Your task to perform on an android device: Add "energizer triple a" to the cart on amazon, then select checkout. Image 0: 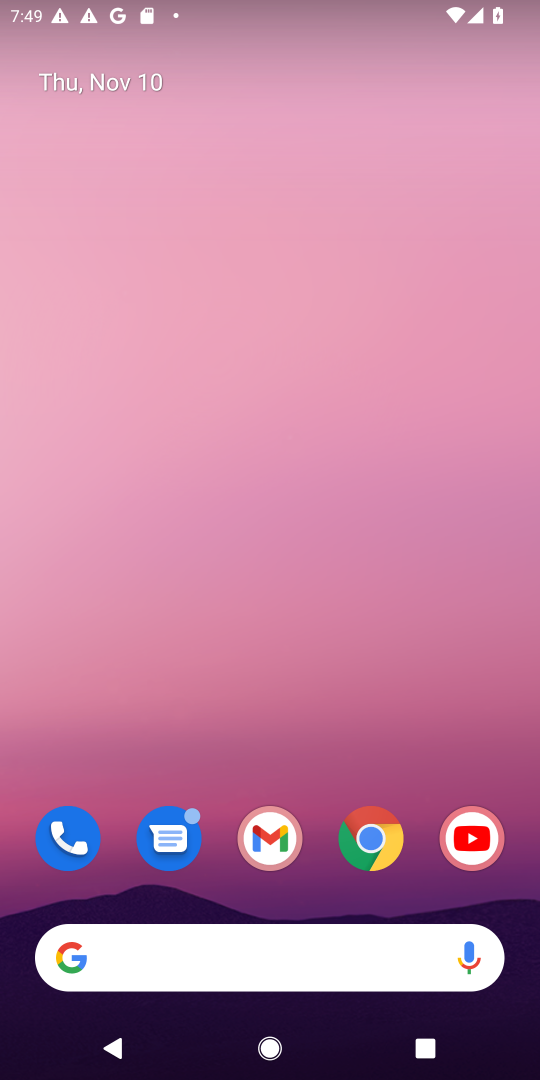
Step 0: drag from (297, 908) to (378, 57)
Your task to perform on an android device: Add "energizer triple a" to the cart on amazon, then select checkout. Image 1: 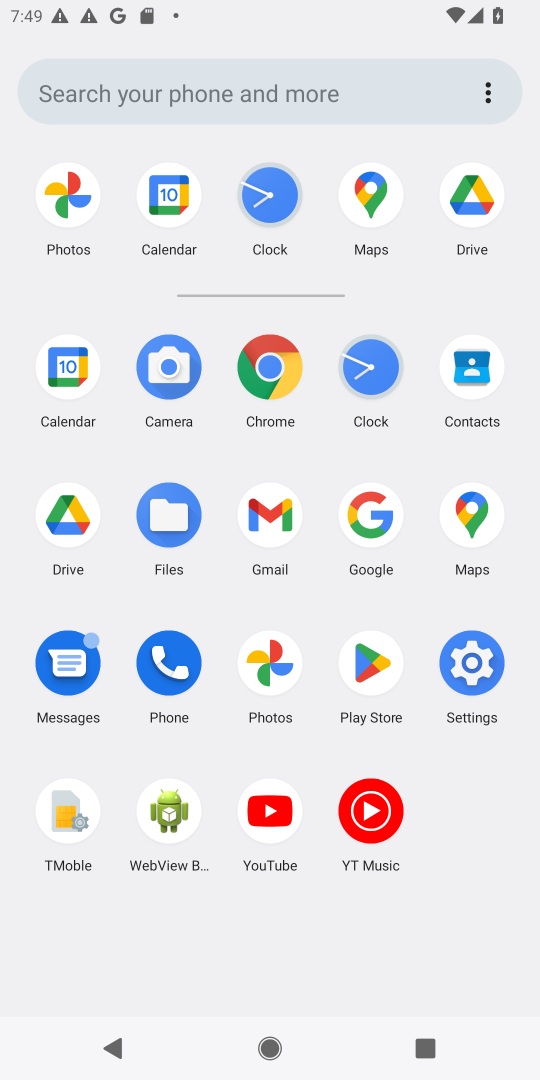
Step 1: click (271, 356)
Your task to perform on an android device: Add "energizer triple a" to the cart on amazon, then select checkout. Image 2: 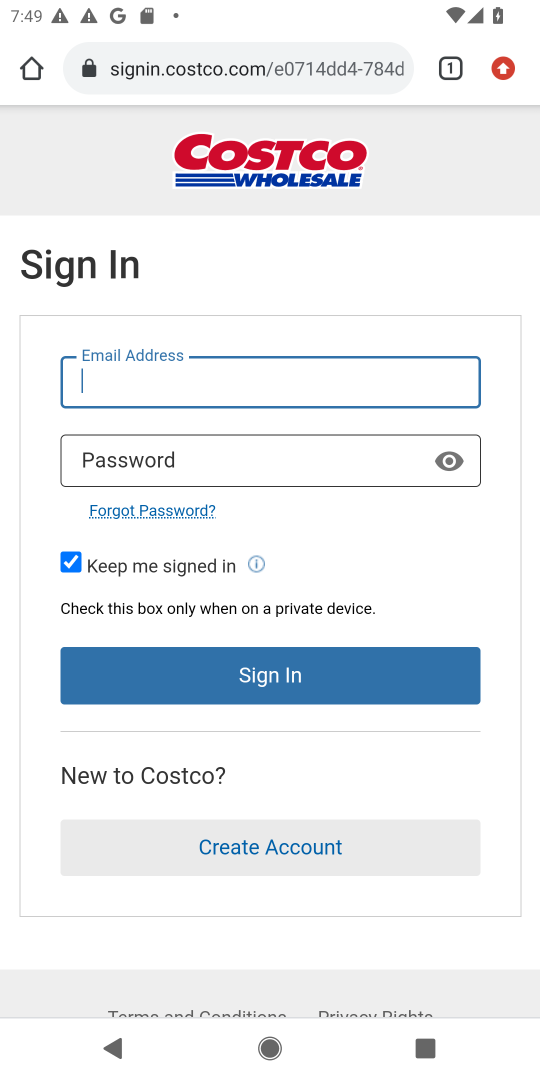
Step 2: click (294, 72)
Your task to perform on an android device: Add "energizer triple a" to the cart on amazon, then select checkout. Image 3: 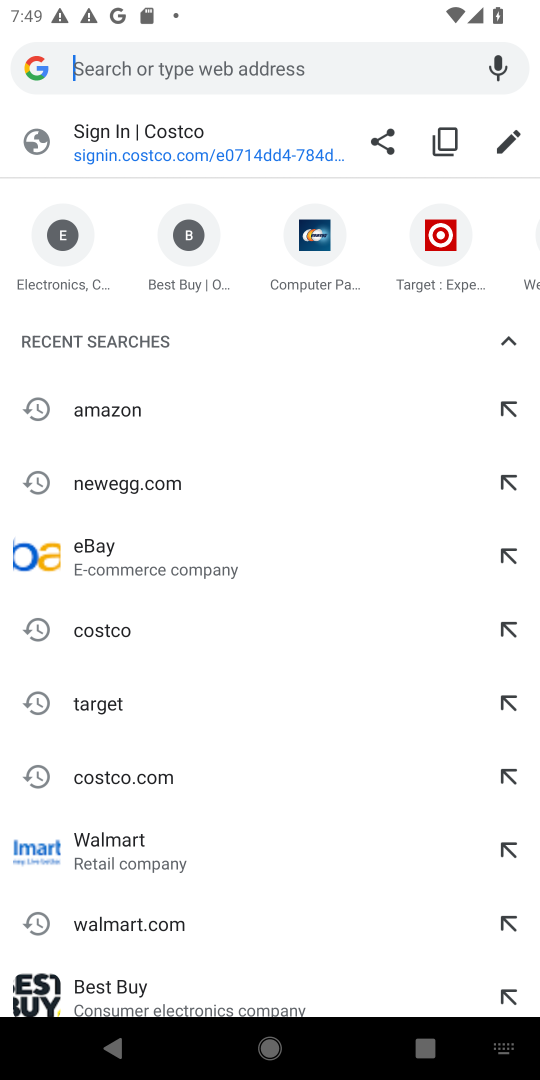
Step 3: type "amazon.com"
Your task to perform on an android device: Add "energizer triple a" to the cart on amazon, then select checkout. Image 4: 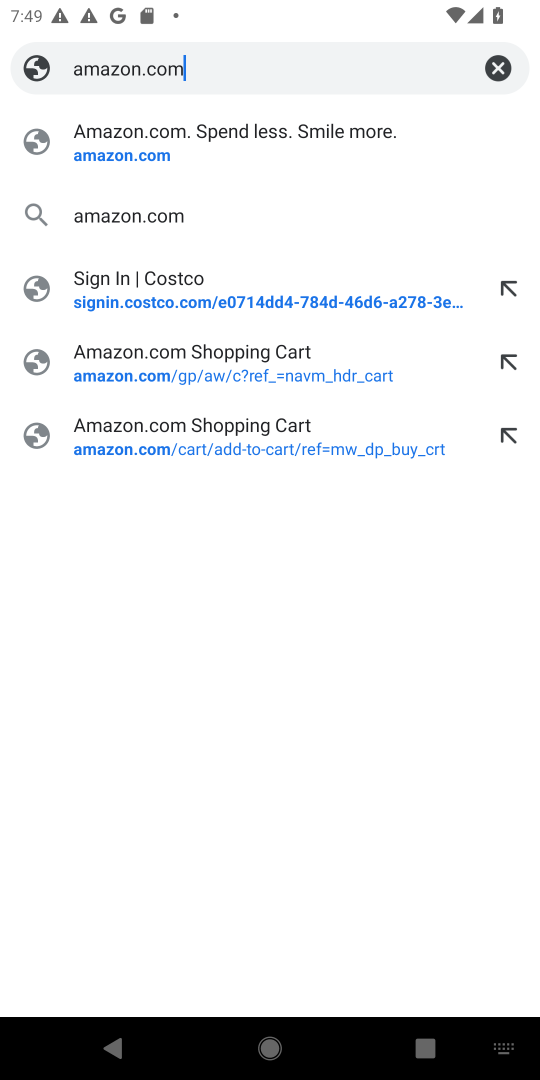
Step 4: press enter
Your task to perform on an android device: Add "energizer triple a" to the cart on amazon, then select checkout. Image 5: 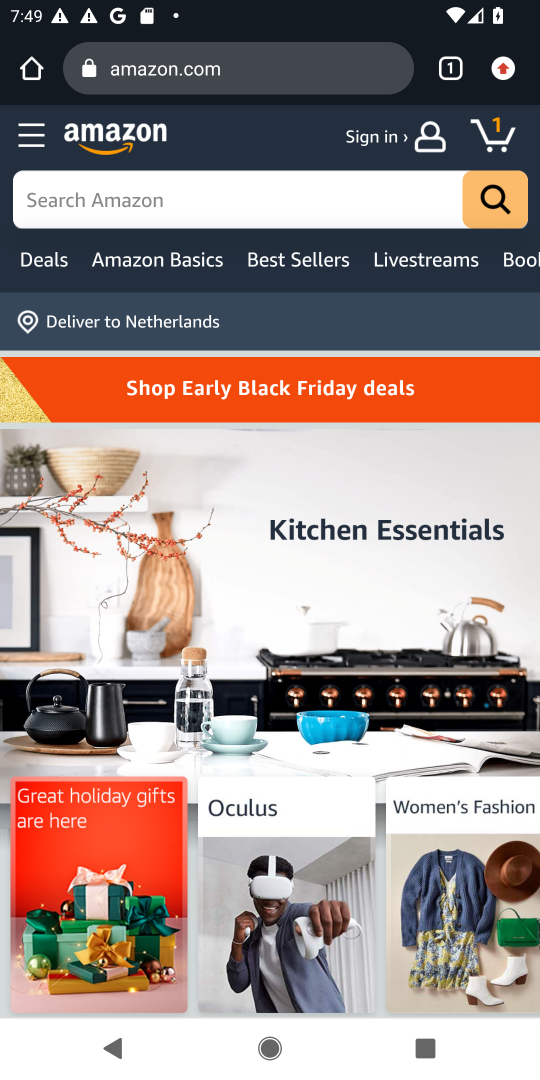
Step 5: click (351, 189)
Your task to perform on an android device: Add "energizer triple a" to the cart on amazon, then select checkout. Image 6: 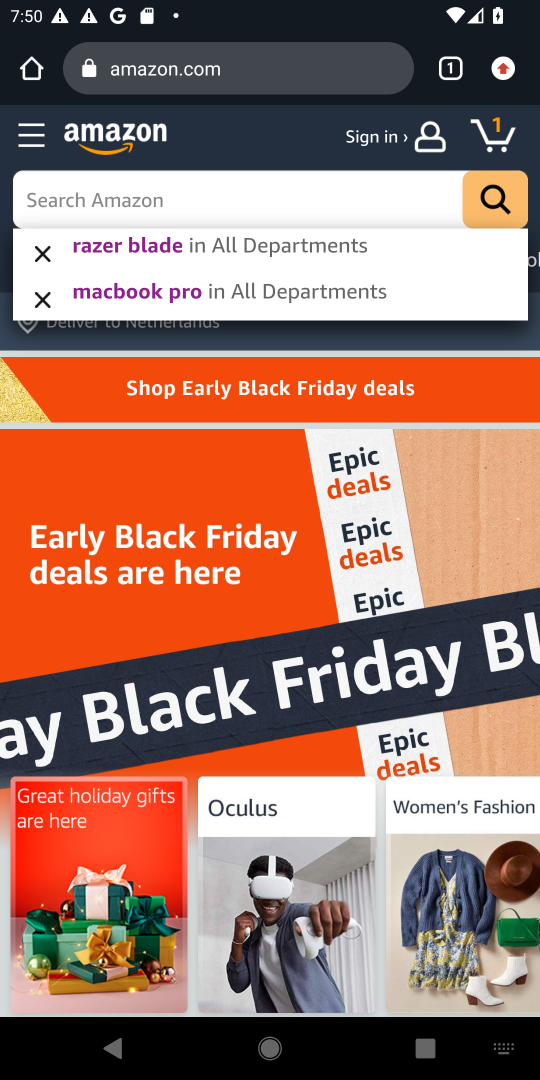
Step 6: type "energizer triple a"
Your task to perform on an android device: Add "energizer triple a" to the cart on amazon, then select checkout. Image 7: 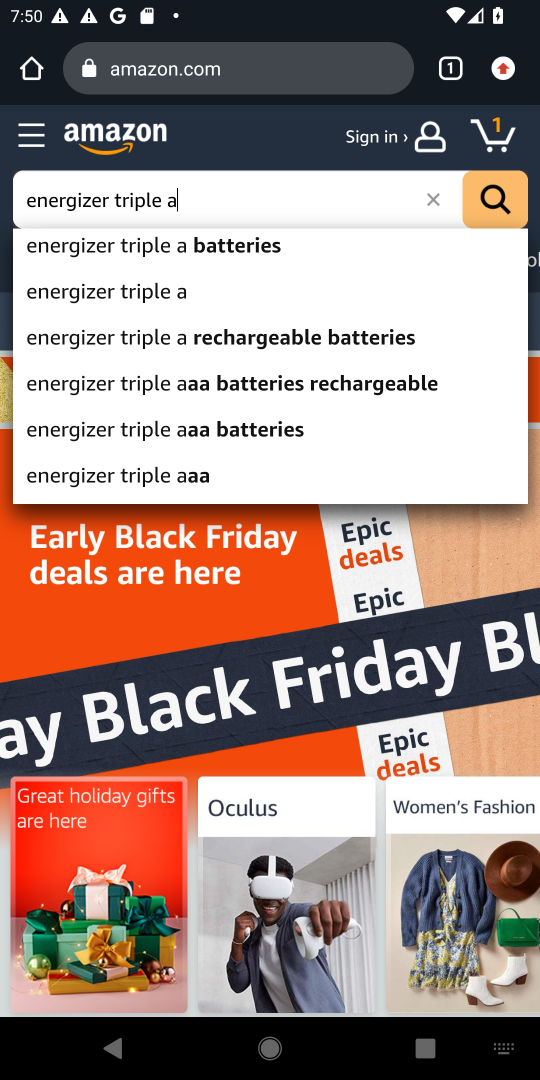
Step 7: press enter
Your task to perform on an android device: Add "energizer triple a" to the cart on amazon, then select checkout. Image 8: 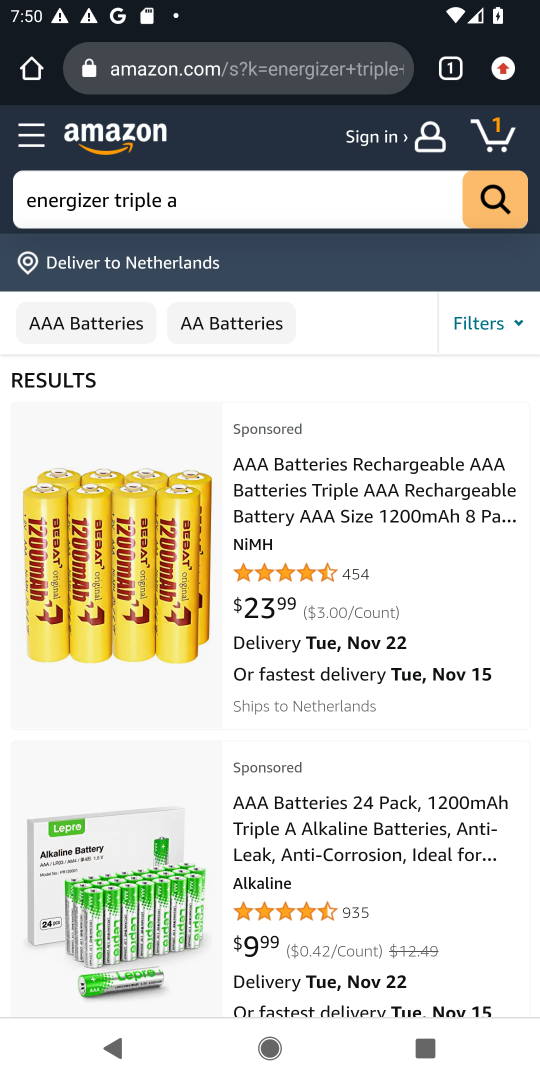
Step 8: drag from (396, 412) to (389, 316)
Your task to perform on an android device: Add "energizer triple a" to the cart on amazon, then select checkout. Image 9: 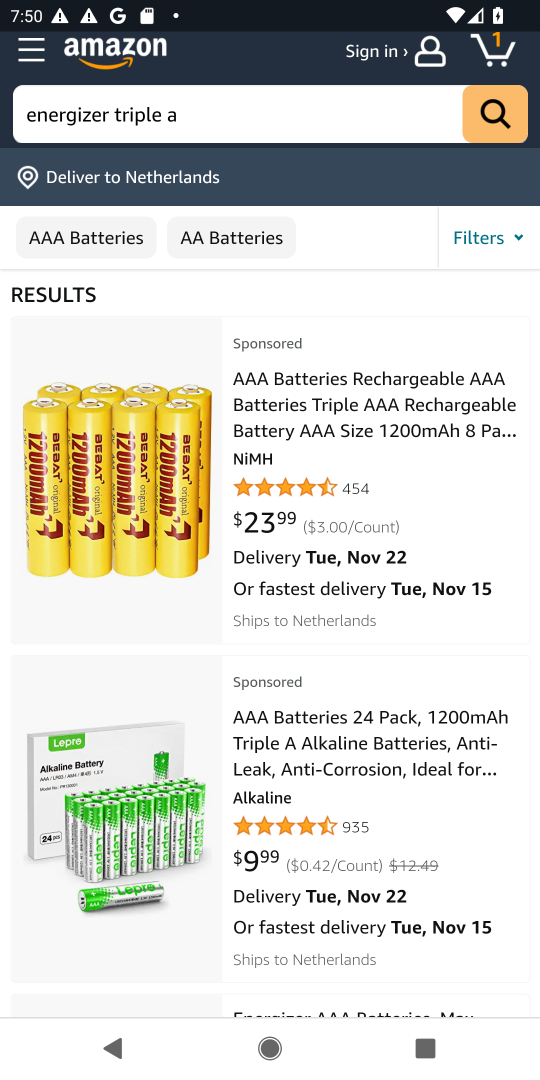
Step 9: drag from (344, 898) to (407, 273)
Your task to perform on an android device: Add "energizer triple a" to the cart on amazon, then select checkout. Image 10: 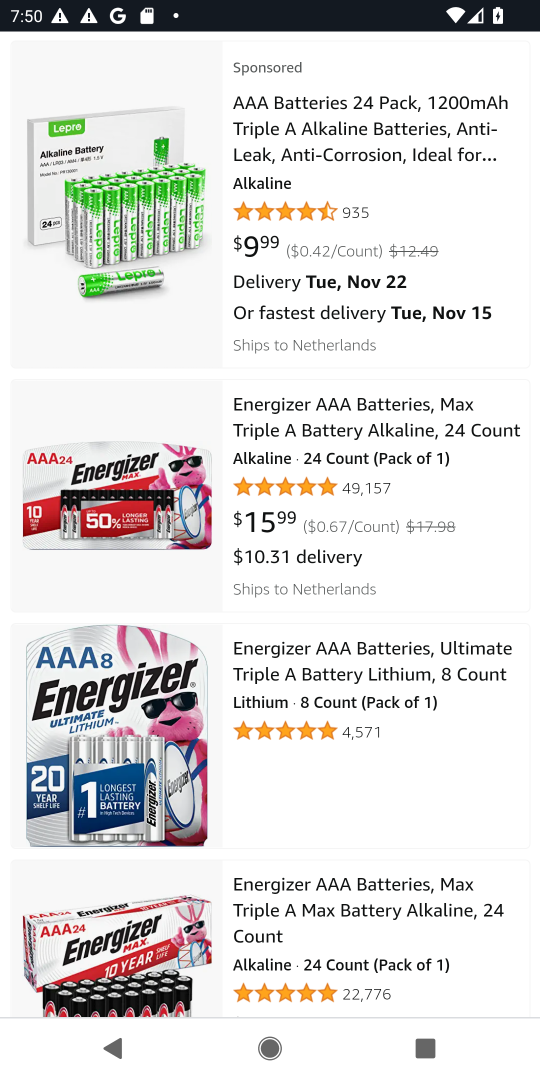
Step 10: click (348, 468)
Your task to perform on an android device: Add "energizer triple a" to the cart on amazon, then select checkout. Image 11: 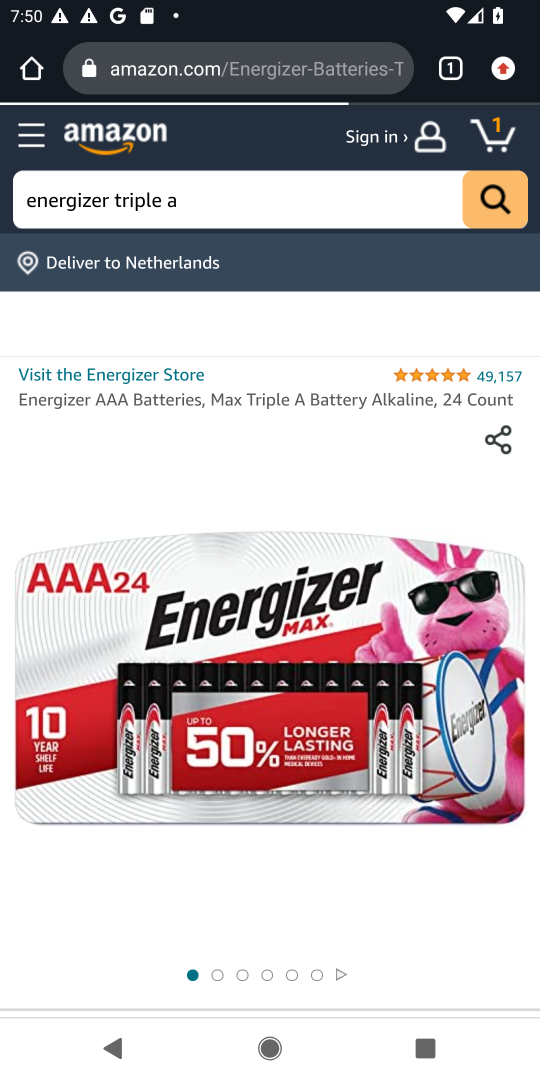
Step 11: drag from (346, 552) to (339, 286)
Your task to perform on an android device: Add "energizer triple a" to the cart on amazon, then select checkout. Image 12: 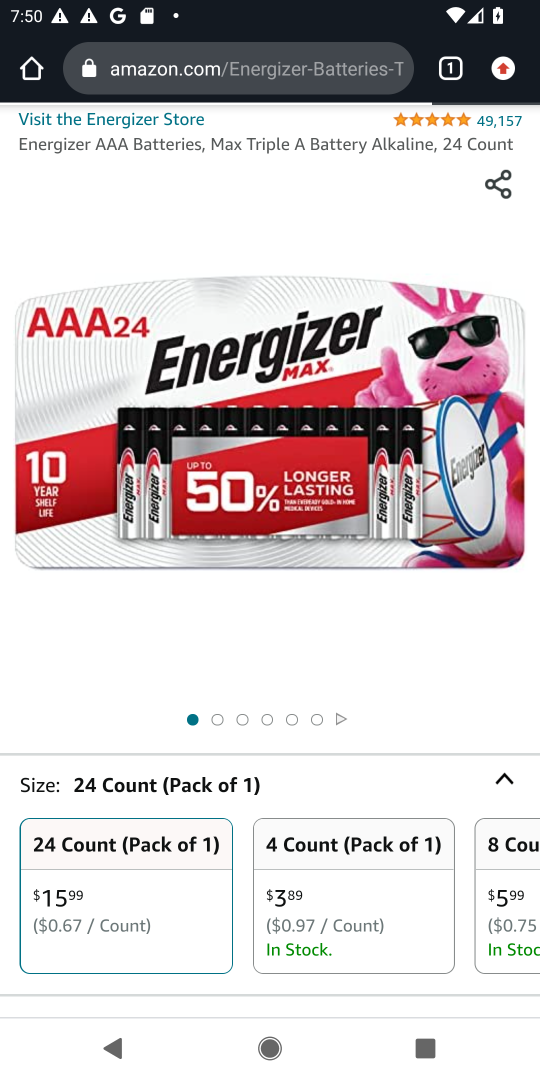
Step 12: drag from (282, 805) to (353, 209)
Your task to perform on an android device: Add "energizer triple a" to the cart on amazon, then select checkout. Image 13: 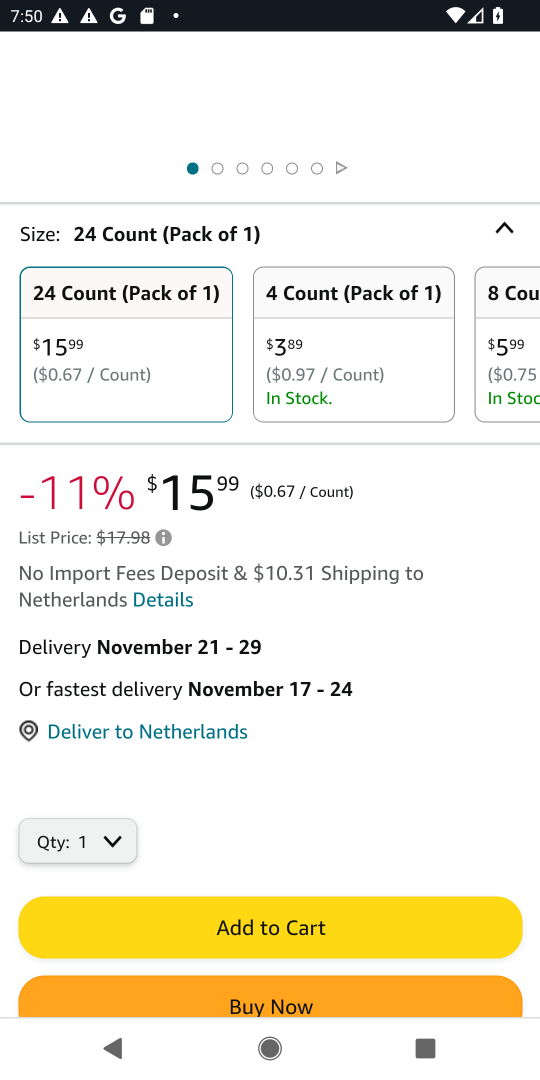
Step 13: click (344, 927)
Your task to perform on an android device: Add "energizer triple a" to the cart on amazon, then select checkout. Image 14: 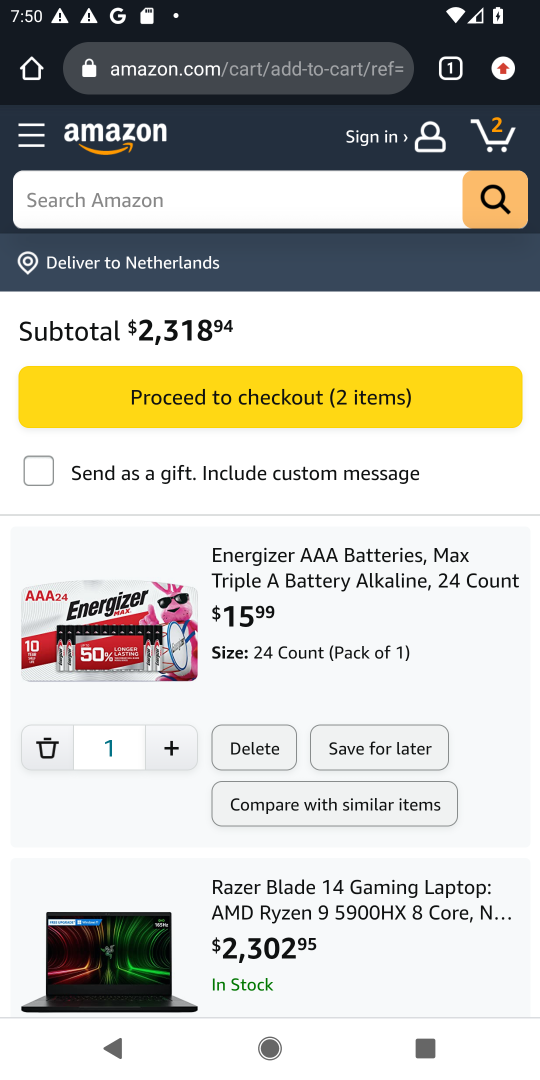
Step 14: click (189, 396)
Your task to perform on an android device: Add "energizer triple a" to the cart on amazon, then select checkout. Image 15: 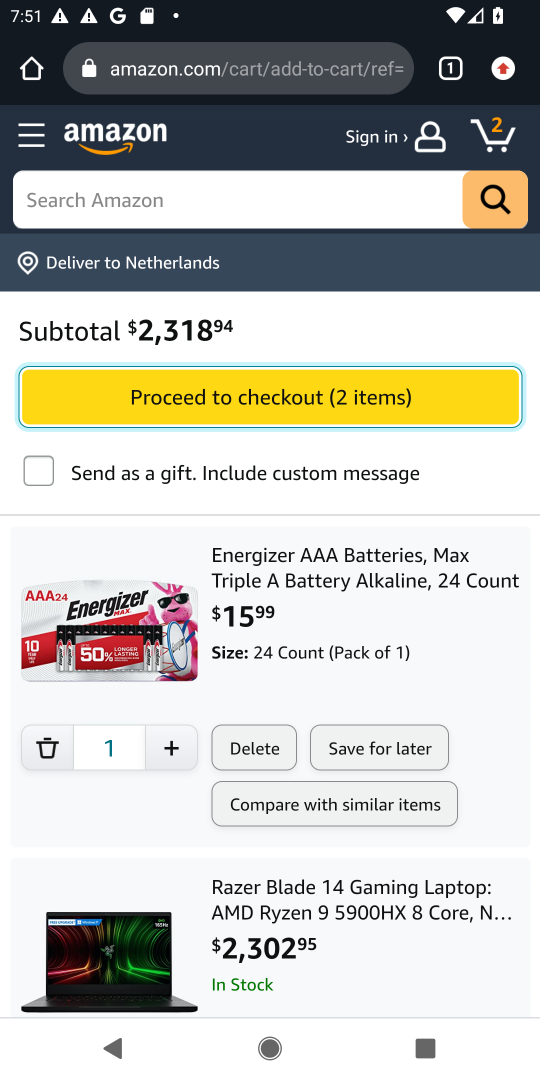
Step 15: click (297, 383)
Your task to perform on an android device: Add "energizer triple a" to the cart on amazon, then select checkout. Image 16: 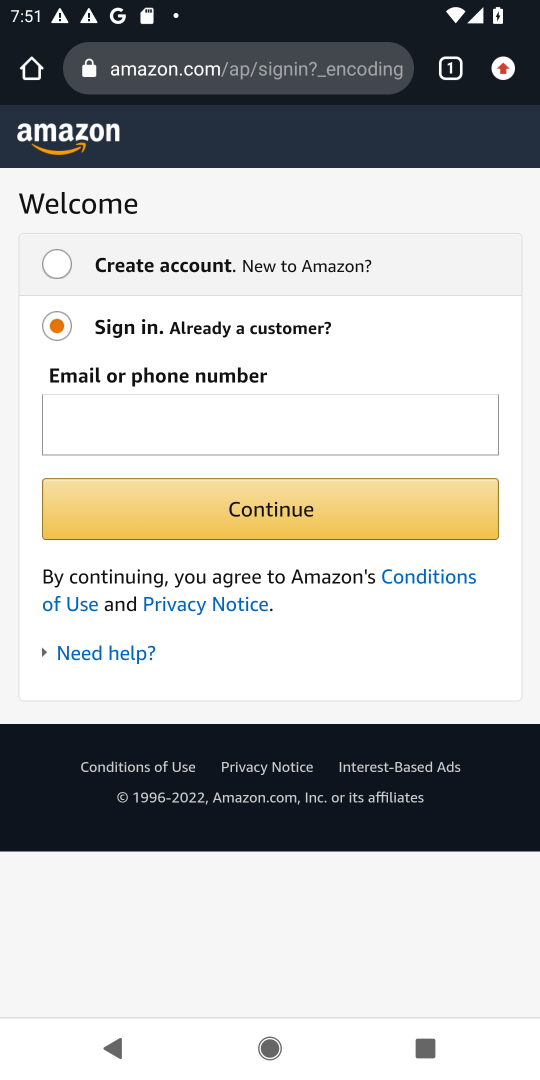
Step 16: task complete